Your task to perform on an android device: turn off javascript in the chrome app Image 0: 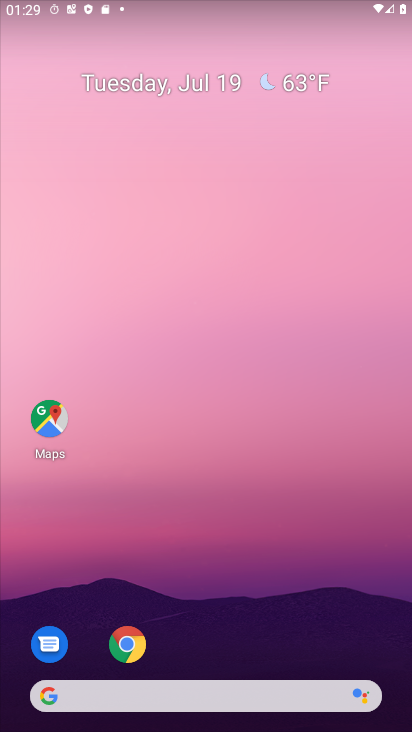
Step 0: click (126, 644)
Your task to perform on an android device: turn off javascript in the chrome app Image 1: 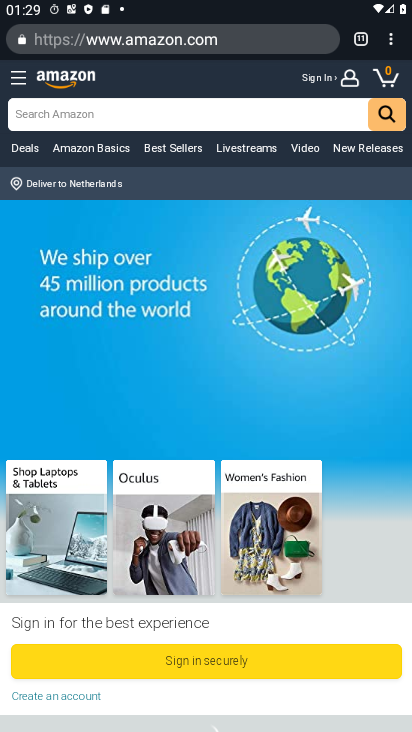
Step 1: click (393, 48)
Your task to perform on an android device: turn off javascript in the chrome app Image 2: 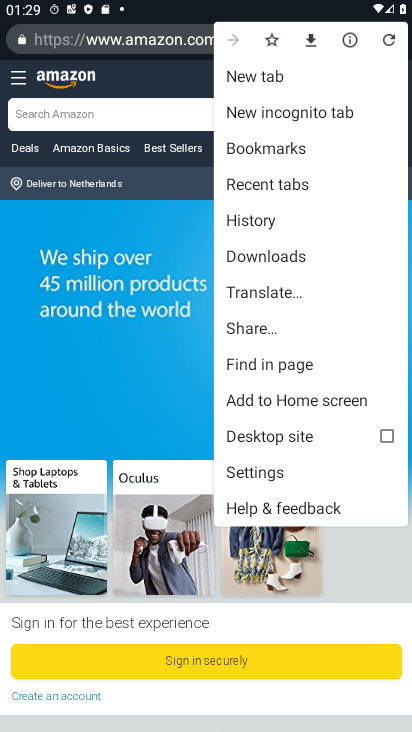
Step 2: click (252, 472)
Your task to perform on an android device: turn off javascript in the chrome app Image 3: 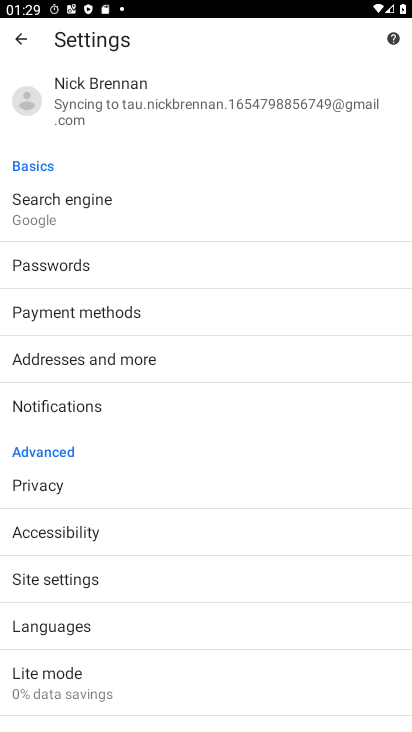
Step 3: click (46, 583)
Your task to perform on an android device: turn off javascript in the chrome app Image 4: 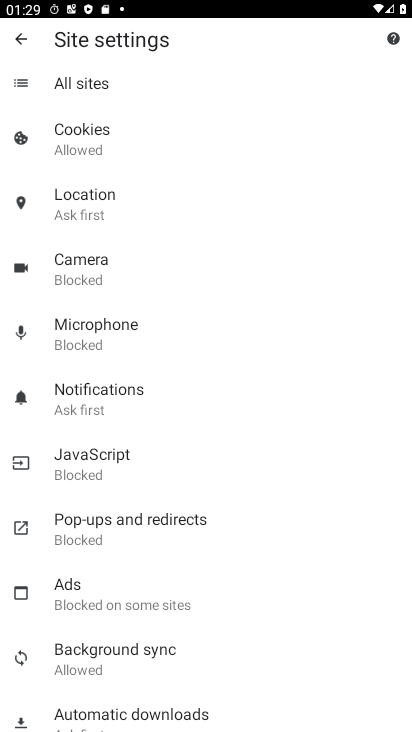
Step 4: click (87, 456)
Your task to perform on an android device: turn off javascript in the chrome app Image 5: 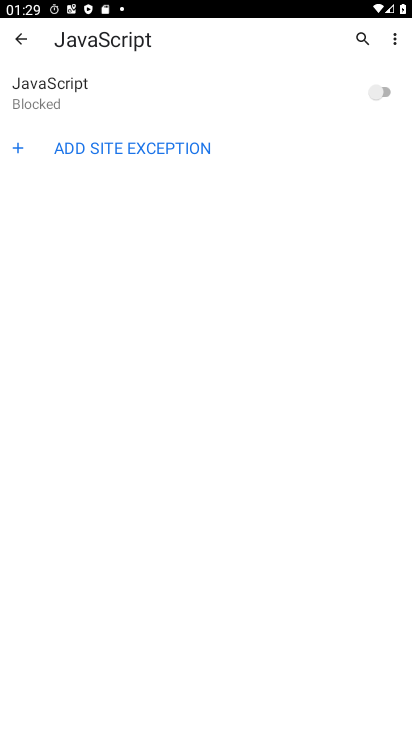
Step 5: task complete